Your task to perform on an android device: turn off data saver in the chrome app Image 0: 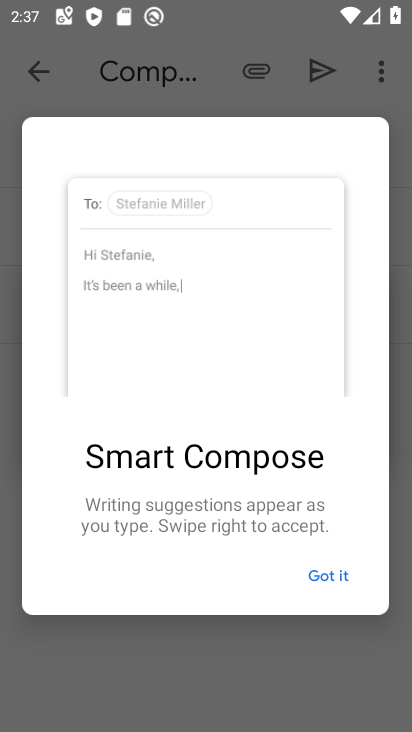
Step 0: press home button
Your task to perform on an android device: turn off data saver in the chrome app Image 1: 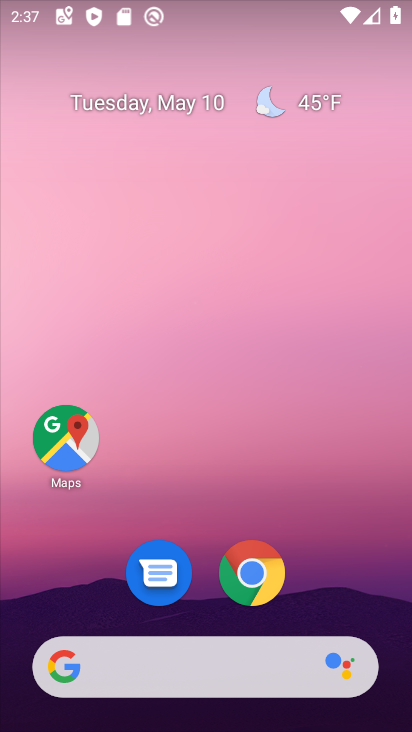
Step 1: click (251, 587)
Your task to perform on an android device: turn off data saver in the chrome app Image 2: 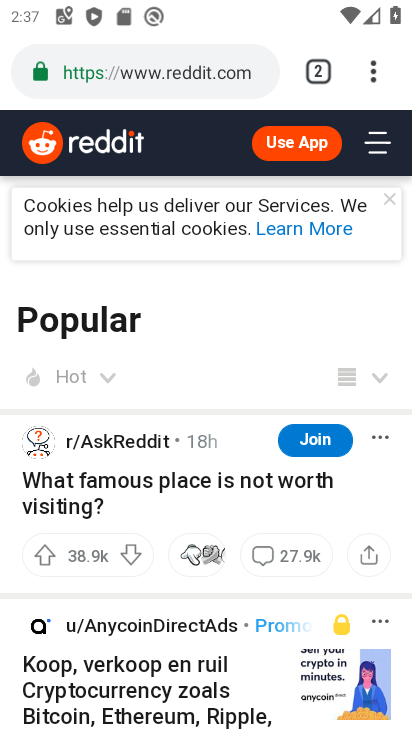
Step 2: drag from (377, 79) to (156, 571)
Your task to perform on an android device: turn off data saver in the chrome app Image 3: 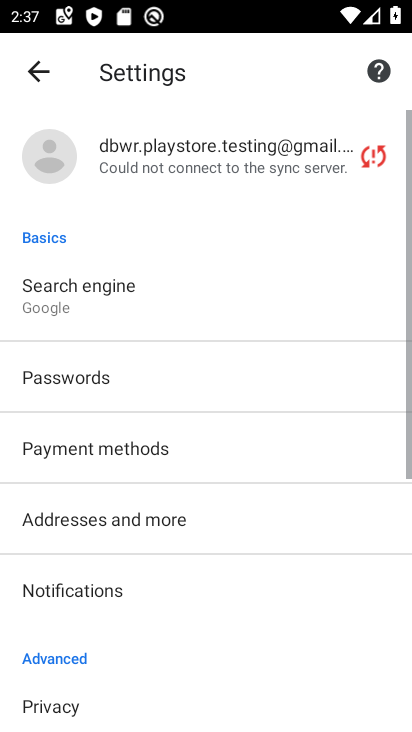
Step 3: drag from (200, 654) to (222, 297)
Your task to perform on an android device: turn off data saver in the chrome app Image 4: 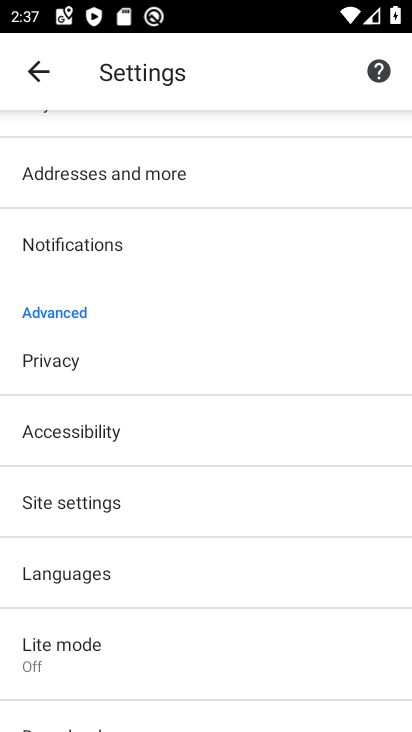
Step 4: click (99, 642)
Your task to perform on an android device: turn off data saver in the chrome app Image 5: 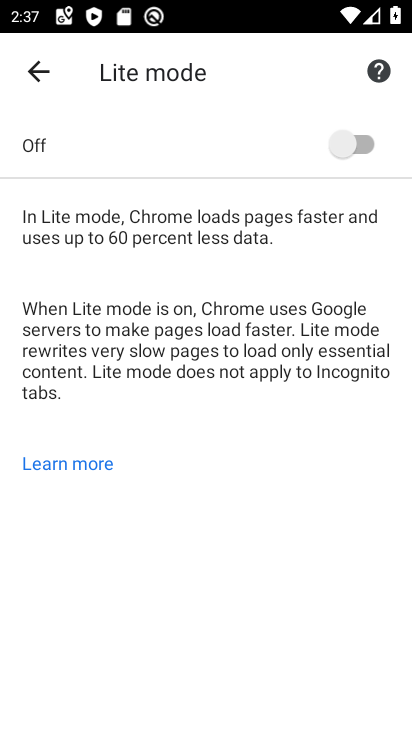
Step 5: task complete